Your task to perform on an android device: toggle javascript in the chrome app Image 0: 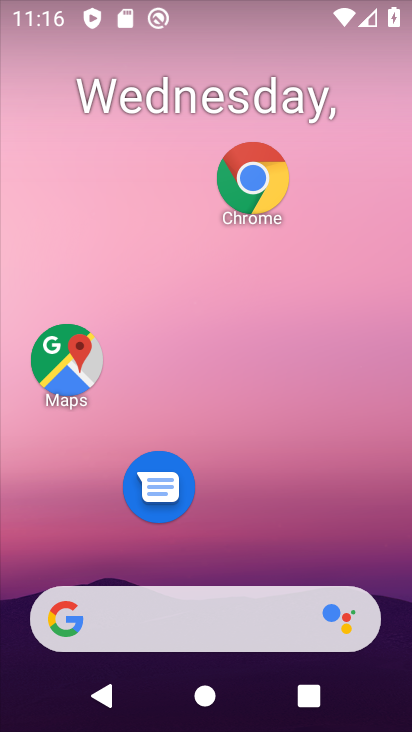
Step 0: click (248, 169)
Your task to perform on an android device: toggle javascript in the chrome app Image 1: 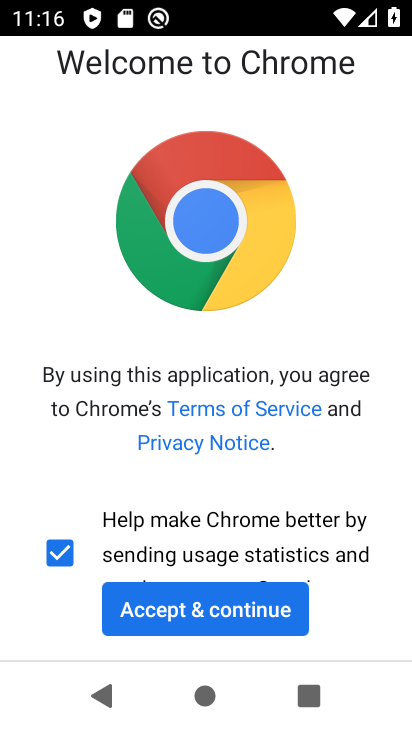
Step 1: click (255, 614)
Your task to perform on an android device: toggle javascript in the chrome app Image 2: 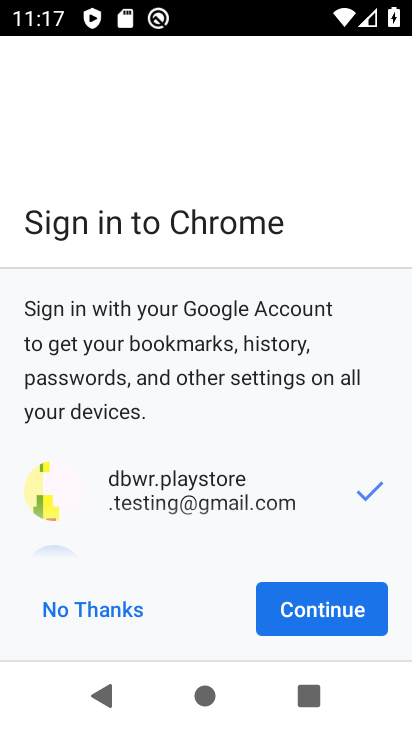
Step 2: click (344, 612)
Your task to perform on an android device: toggle javascript in the chrome app Image 3: 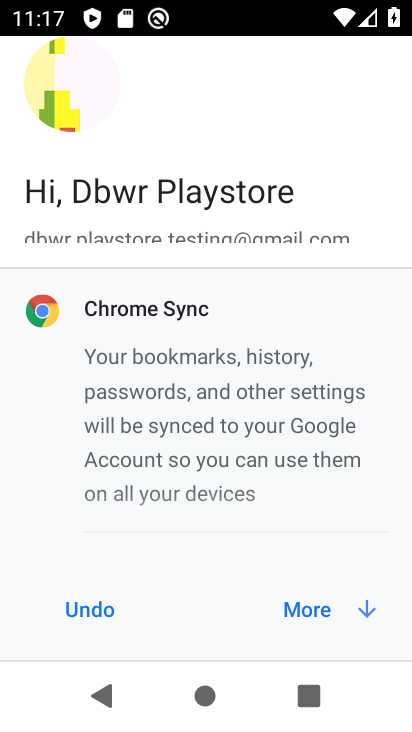
Step 3: click (344, 604)
Your task to perform on an android device: toggle javascript in the chrome app Image 4: 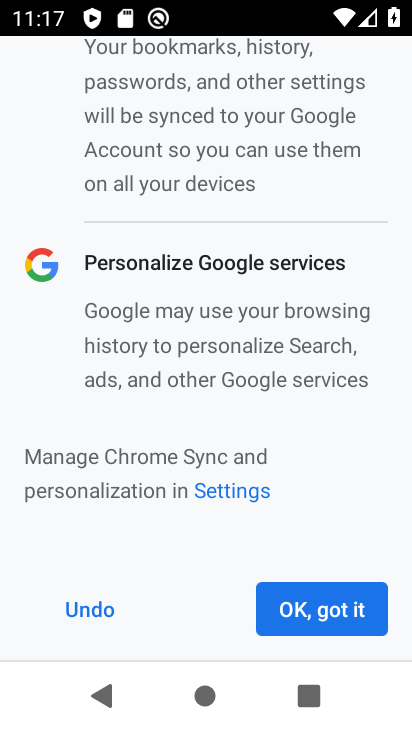
Step 4: click (344, 604)
Your task to perform on an android device: toggle javascript in the chrome app Image 5: 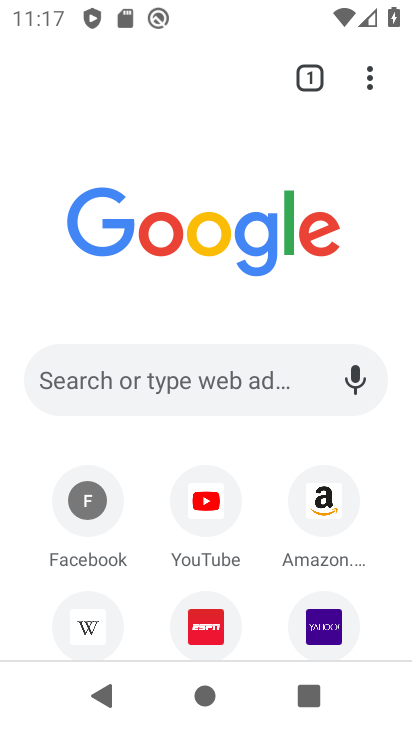
Step 5: click (369, 69)
Your task to perform on an android device: toggle javascript in the chrome app Image 6: 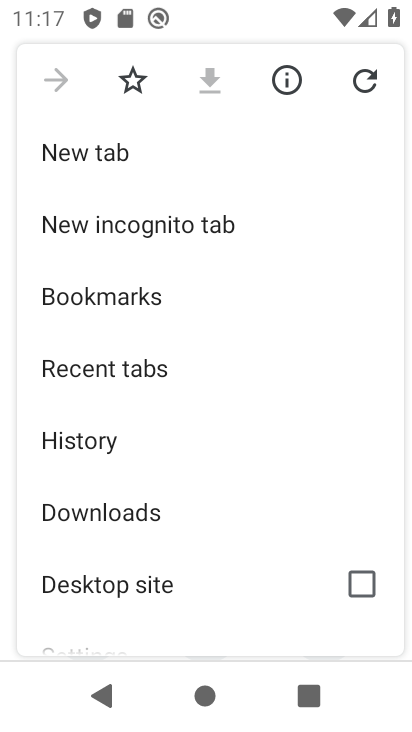
Step 6: drag from (243, 519) to (243, 158)
Your task to perform on an android device: toggle javascript in the chrome app Image 7: 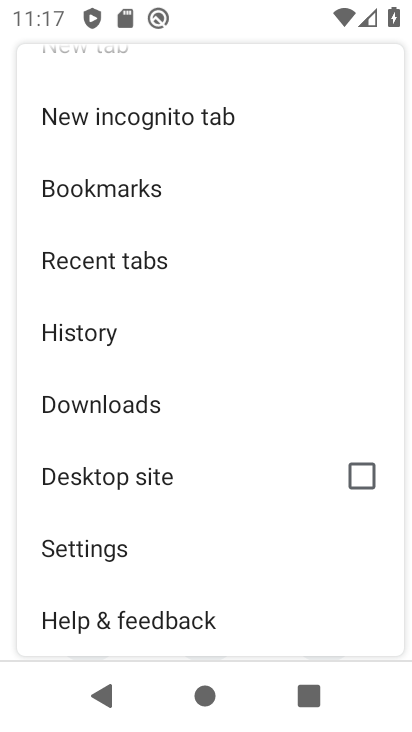
Step 7: click (121, 555)
Your task to perform on an android device: toggle javascript in the chrome app Image 8: 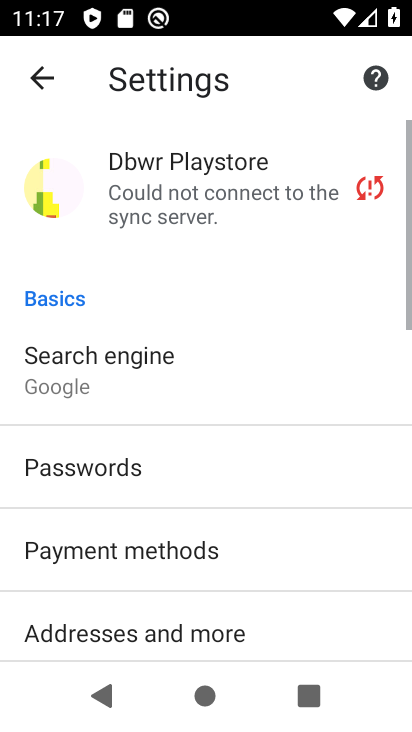
Step 8: drag from (184, 582) to (230, 98)
Your task to perform on an android device: toggle javascript in the chrome app Image 9: 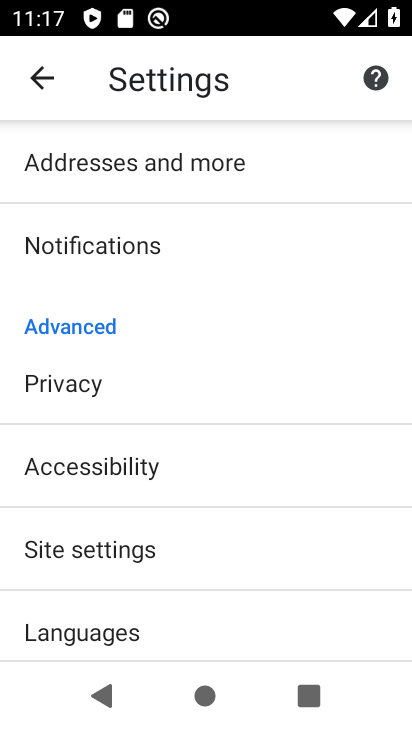
Step 9: click (138, 548)
Your task to perform on an android device: toggle javascript in the chrome app Image 10: 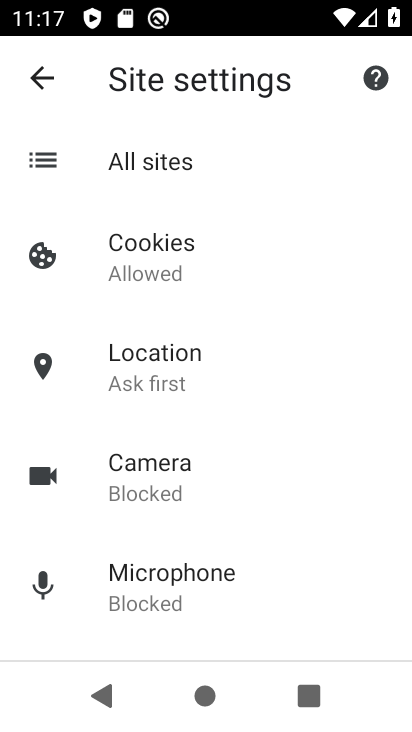
Step 10: drag from (227, 590) to (225, 125)
Your task to perform on an android device: toggle javascript in the chrome app Image 11: 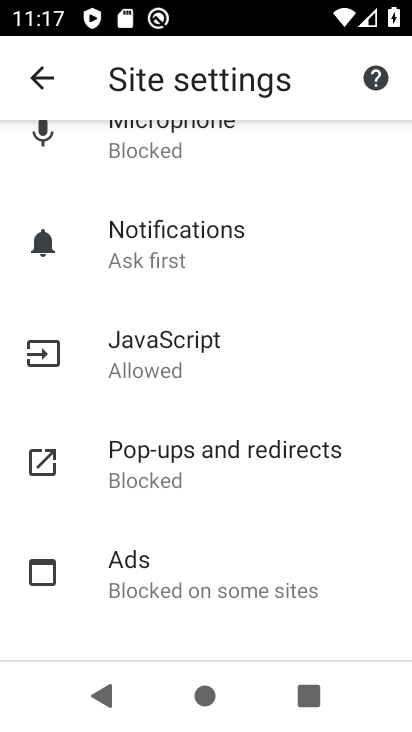
Step 11: click (196, 360)
Your task to perform on an android device: toggle javascript in the chrome app Image 12: 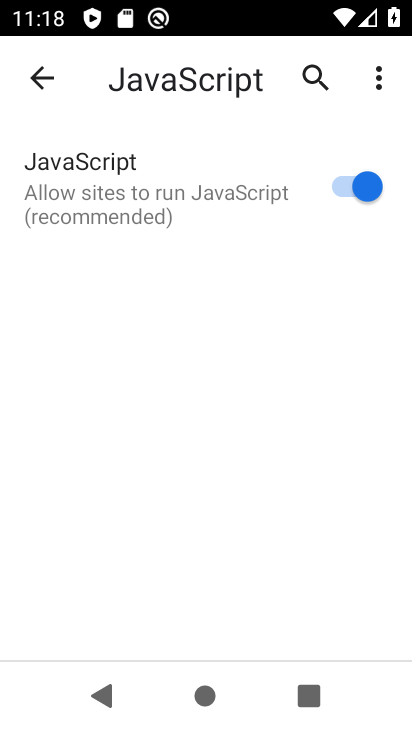
Step 12: click (333, 186)
Your task to perform on an android device: toggle javascript in the chrome app Image 13: 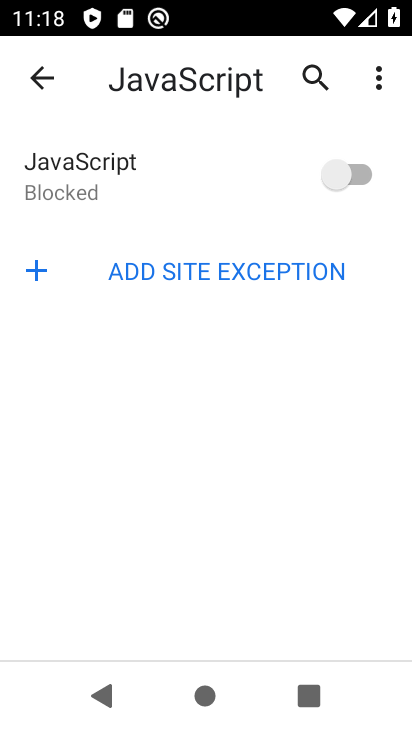
Step 13: task complete